Your task to perform on an android device: check android version Image 0: 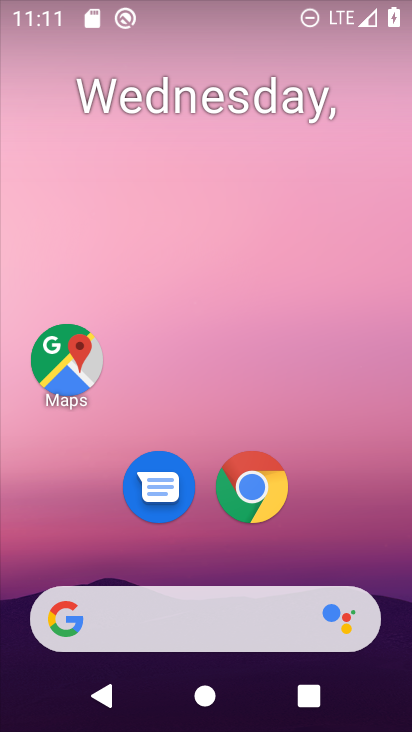
Step 0: drag from (326, 527) to (266, 40)
Your task to perform on an android device: check android version Image 1: 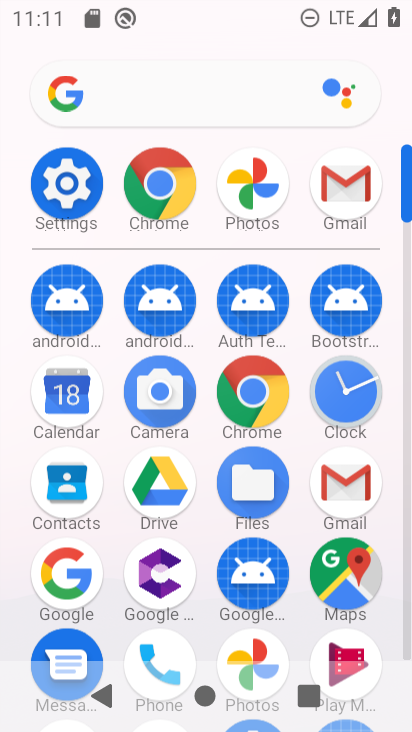
Step 1: click (266, 40)
Your task to perform on an android device: check android version Image 2: 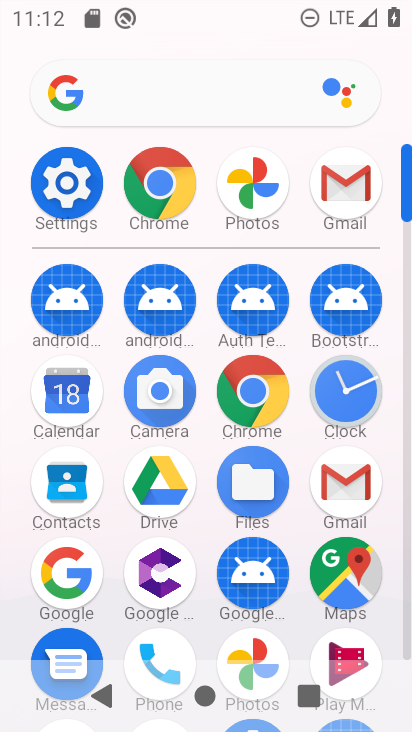
Step 2: click (65, 163)
Your task to perform on an android device: check android version Image 3: 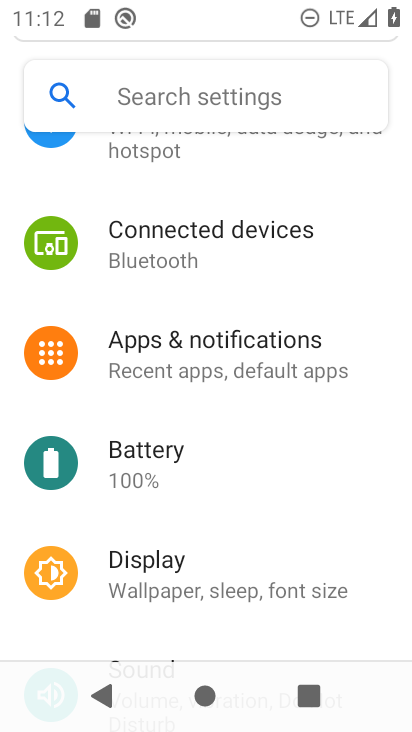
Step 3: drag from (274, 488) to (278, 165)
Your task to perform on an android device: check android version Image 4: 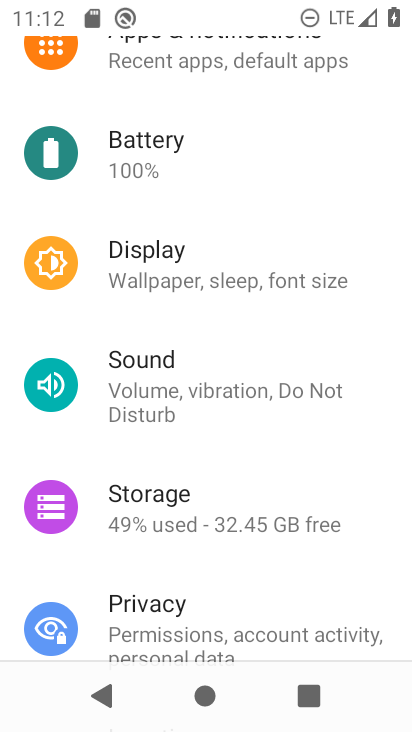
Step 4: drag from (203, 295) to (198, 191)
Your task to perform on an android device: check android version Image 5: 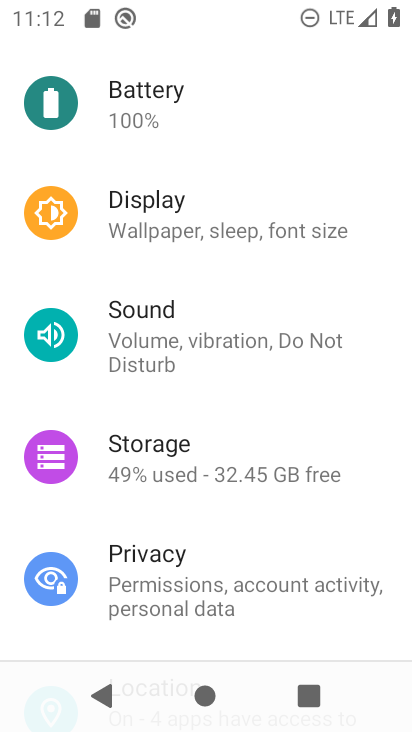
Step 5: drag from (210, 513) to (184, 224)
Your task to perform on an android device: check android version Image 6: 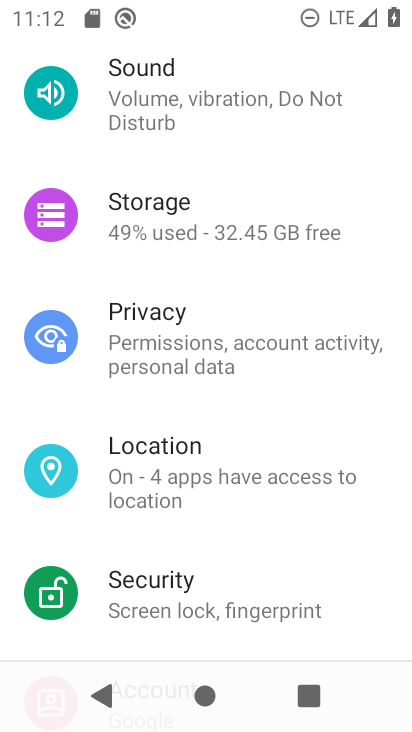
Step 6: drag from (180, 522) to (186, 208)
Your task to perform on an android device: check android version Image 7: 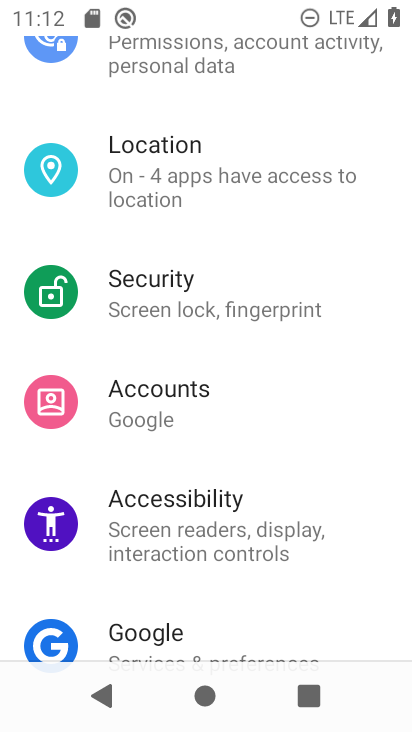
Step 7: drag from (192, 577) to (145, 121)
Your task to perform on an android device: check android version Image 8: 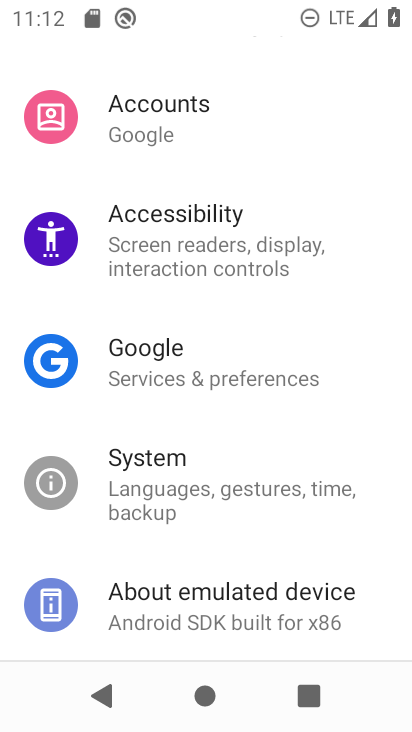
Step 8: click (167, 581)
Your task to perform on an android device: check android version Image 9: 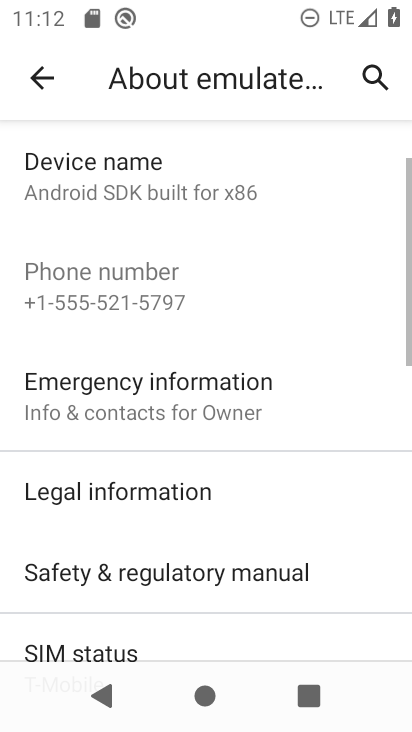
Step 9: task complete